Your task to perform on an android device: Open the calendar and show me this week's events? Image 0: 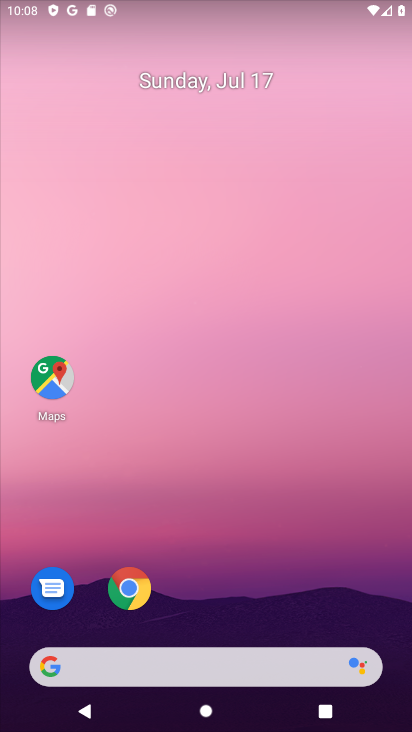
Step 0: drag from (267, 603) to (188, 136)
Your task to perform on an android device: Open the calendar and show me this week's events? Image 1: 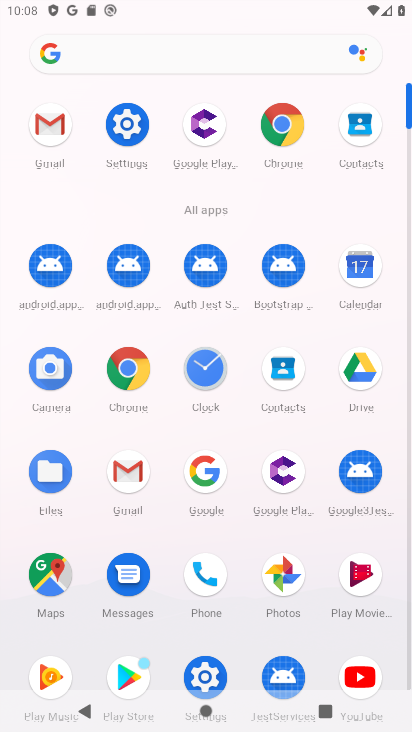
Step 1: click (355, 264)
Your task to perform on an android device: Open the calendar and show me this week's events? Image 2: 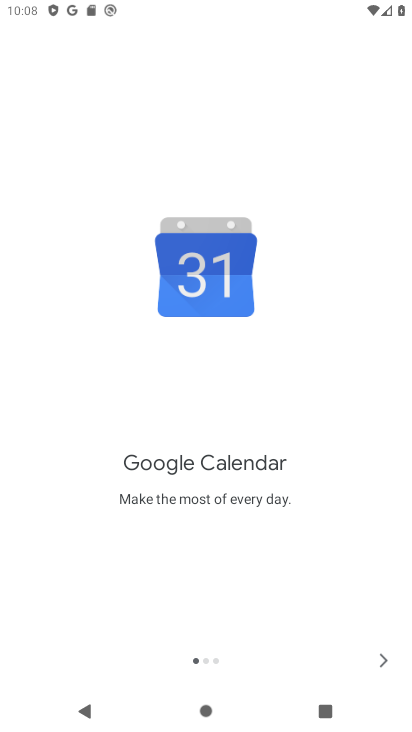
Step 2: click (381, 663)
Your task to perform on an android device: Open the calendar and show me this week's events? Image 3: 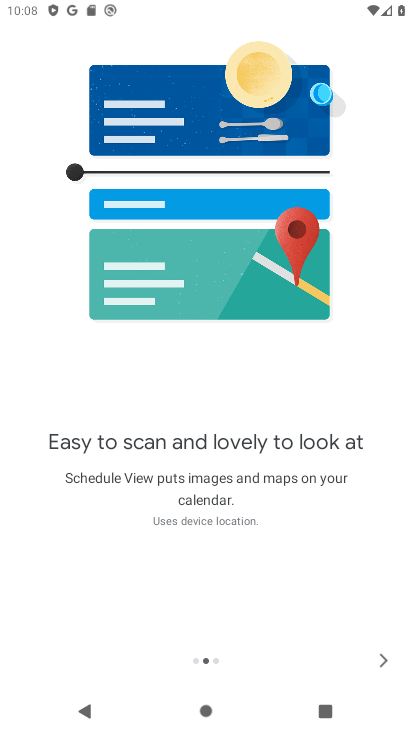
Step 3: click (381, 663)
Your task to perform on an android device: Open the calendar and show me this week's events? Image 4: 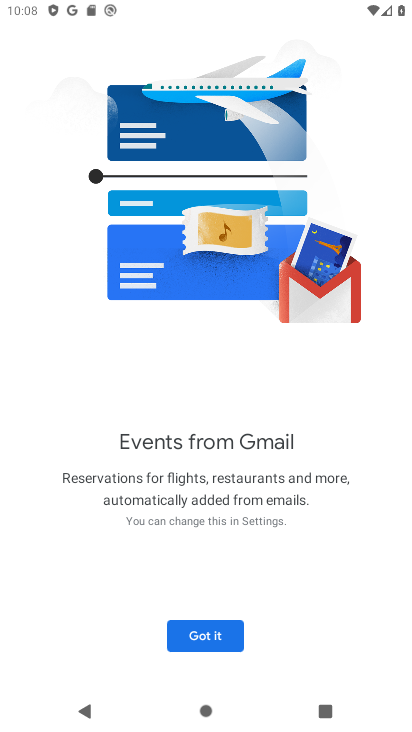
Step 4: click (171, 639)
Your task to perform on an android device: Open the calendar and show me this week's events? Image 5: 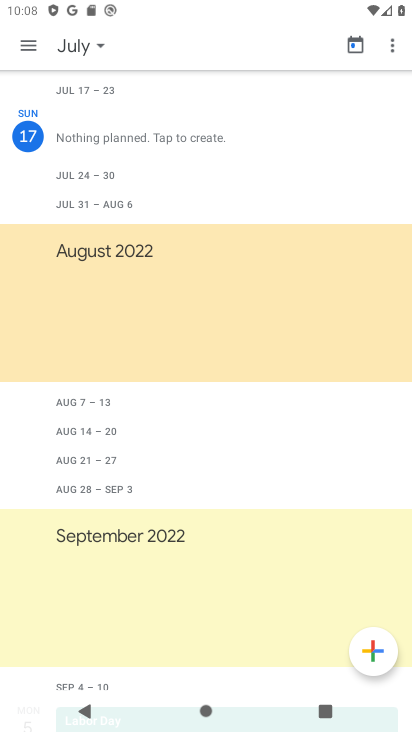
Step 5: click (30, 46)
Your task to perform on an android device: Open the calendar and show me this week's events? Image 6: 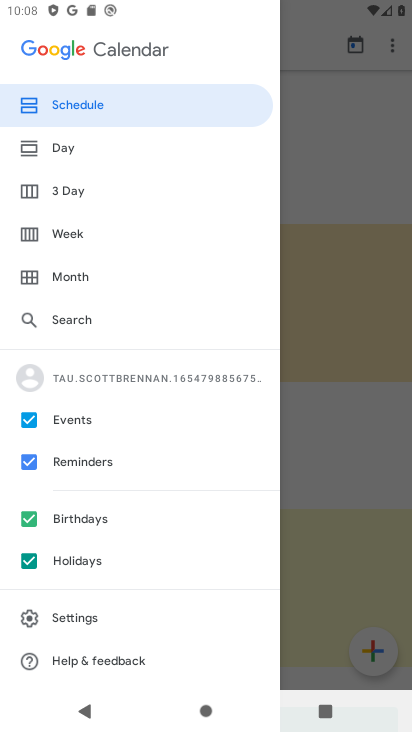
Step 6: click (24, 562)
Your task to perform on an android device: Open the calendar and show me this week's events? Image 7: 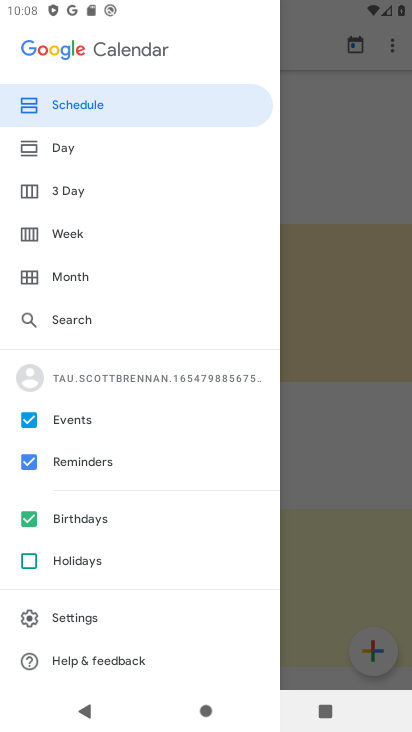
Step 7: click (26, 514)
Your task to perform on an android device: Open the calendar and show me this week's events? Image 8: 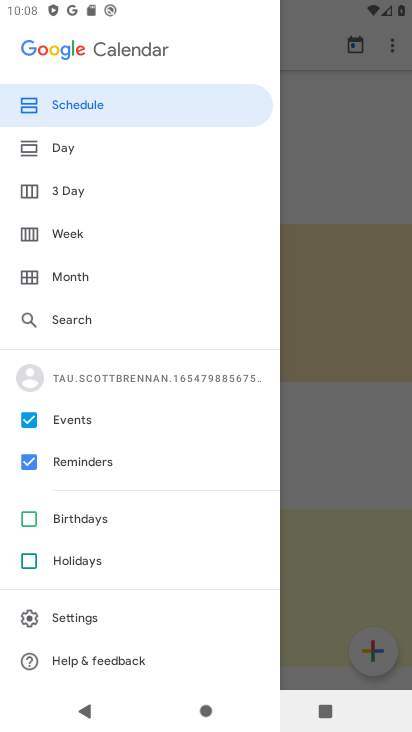
Step 8: click (21, 460)
Your task to perform on an android device: Open the calendar and show me this week's events? Image 9: 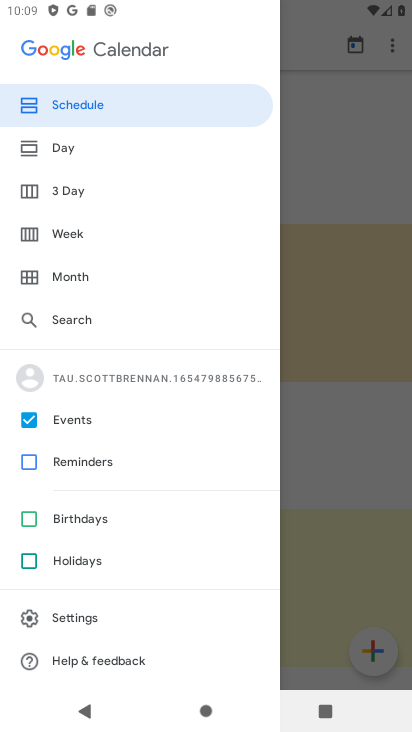
Step 9: click (81, 232)
Your task to perform on an android device: Open the calendar and show me this week's events? Image 10: 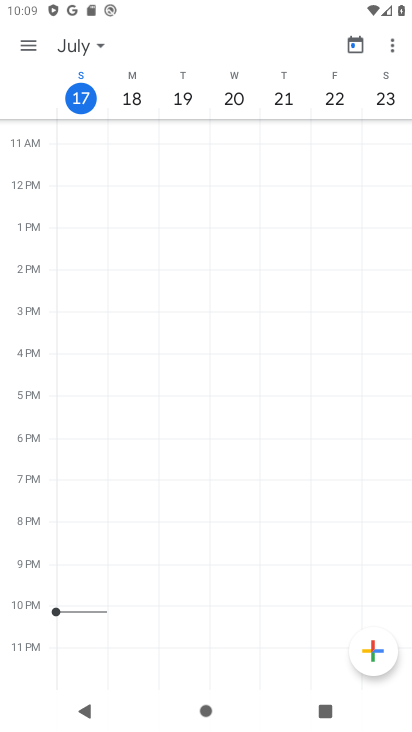
Step 10: task complete